Your task to perform on an android device: Open Chrome and go to the settings page Image 0: 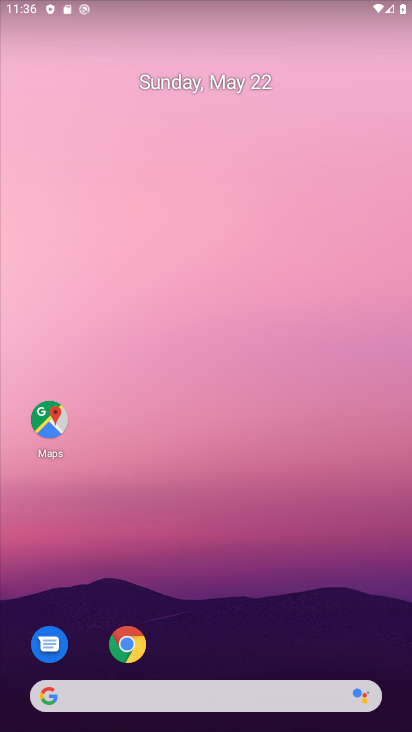
Step 0: drag from (321, 637) to (236, 94)
Your task to perform on an android device: Open Chrome and go to the settings page Image 1: 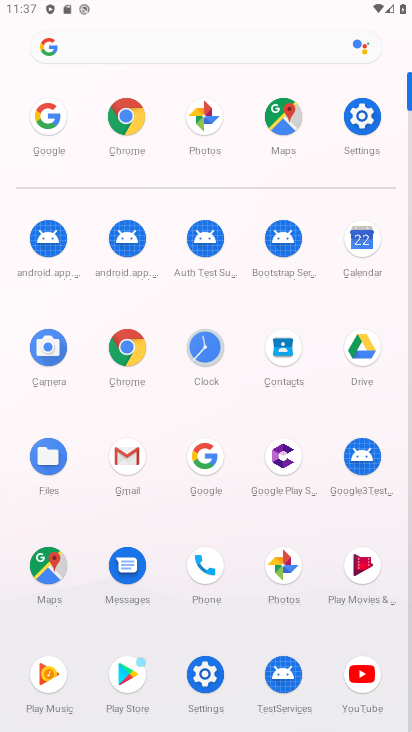
Step 1: click (128, 121)
Your task to perform on an android device: Open Chrome and go to the settings page Image 2: 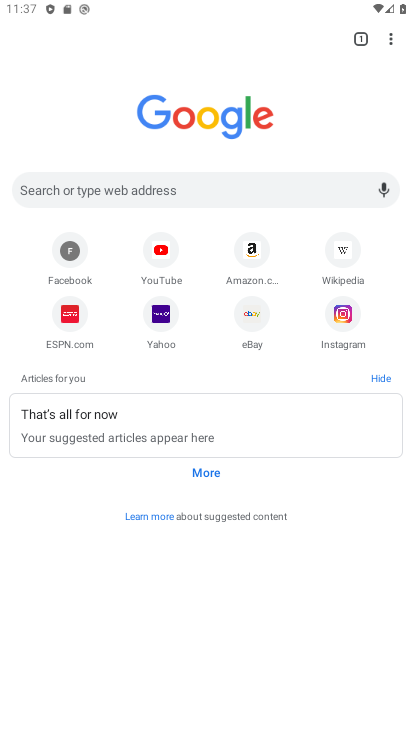
Step 2: click (388, 35)
Your task to perform on an android device: Open Chrome and go to the settings page Image 3: 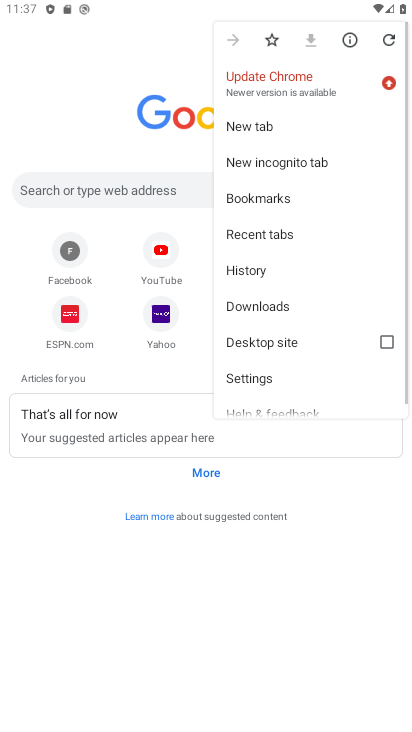
Step 3: click (276, 373)
Your task to perform on an android device: Open Chrome and go to the settings page Image 4: 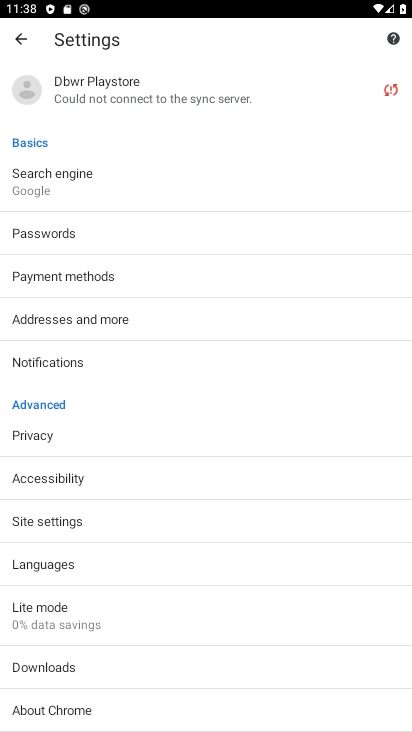
Step 4: task complete